Your task to perform on an android device: open chrome and create a bookmark for the current page Image 0: 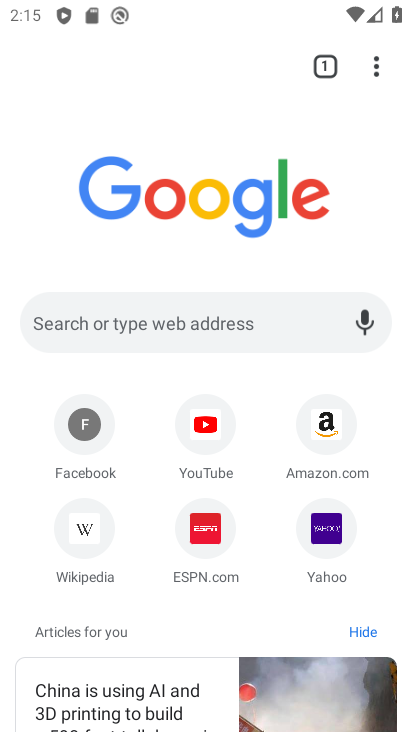
Step 0: press home button
Your task to perform on an android device: open chrome and create a bookmark for the current page Image 1: 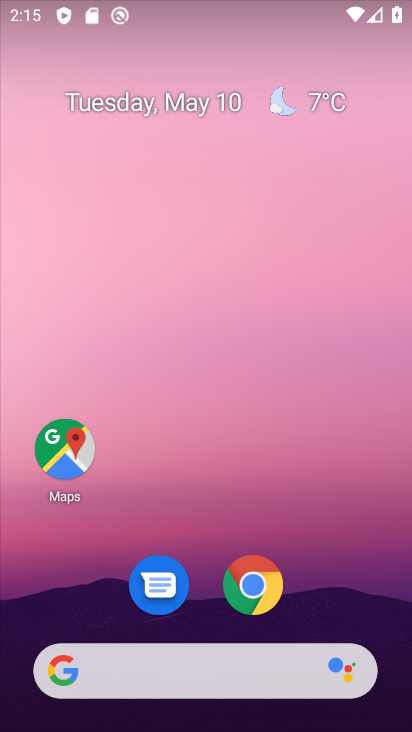
Step 1: click (244, 575)
Your task to perform on an android device: open chrome and create a bookmark for the current page Image 2: 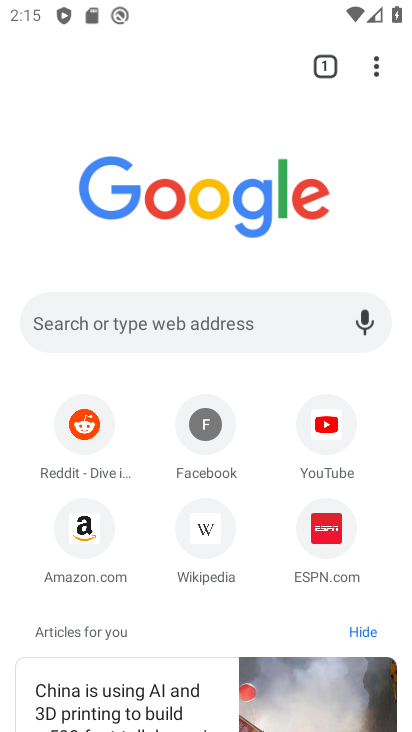
Step 2: click (375, 68)
Your task to perform on an android device: open chrome and create a bookmark for the current page Image 3: 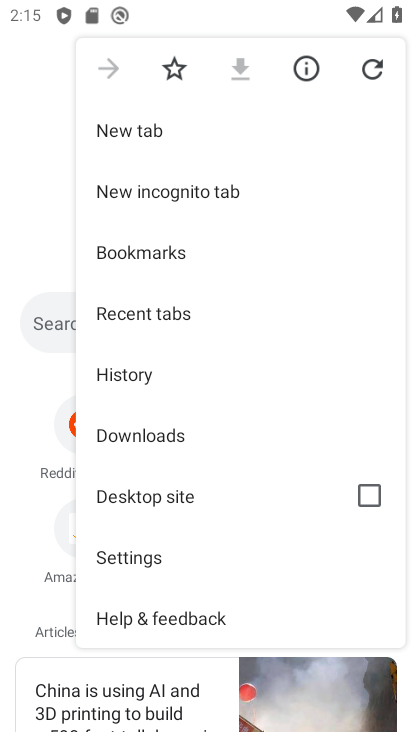
Step 3: click (173, 62)
Your task to perform on an android device: open chrome and create a bookmark for the current page Image 4: 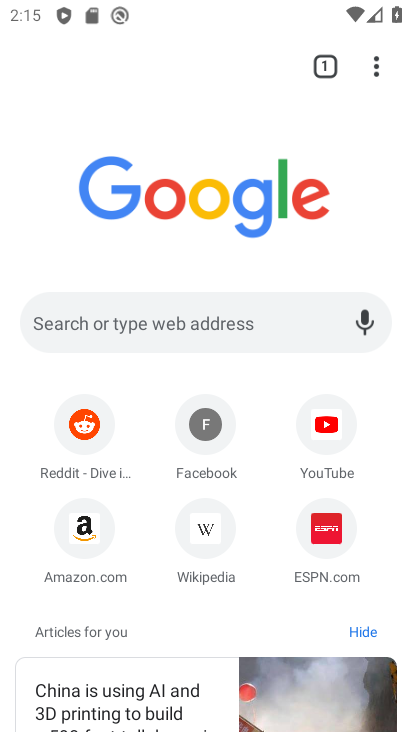
Step 4: task complete